Your task to perform on an android device: Open Google Chrome and open the bookmarks view Image 0: 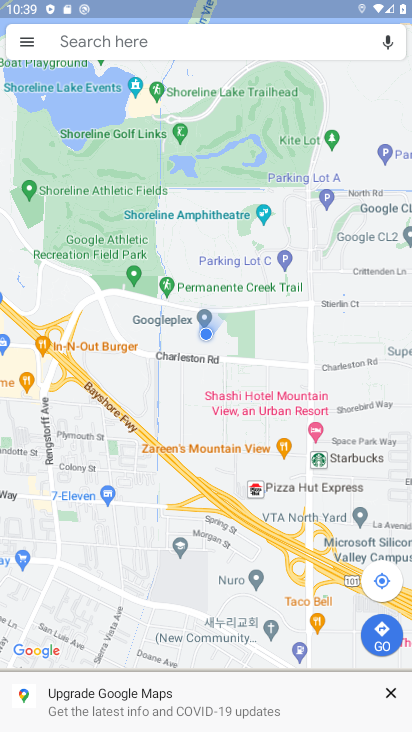
Step 0: press home button
Your task to perform on an android device: Open Google Chrome and open the bookmarks view Image 1: 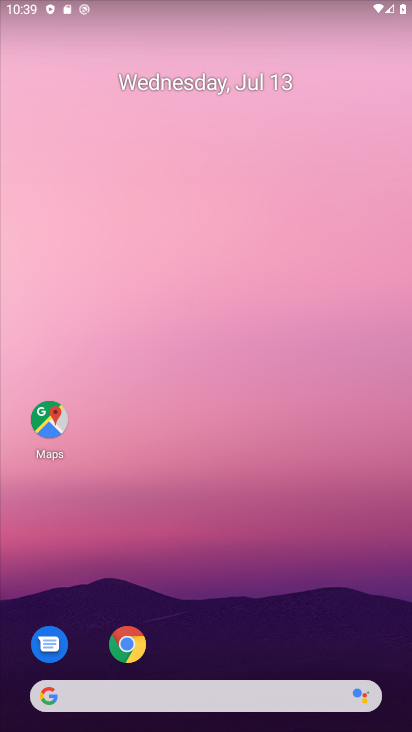
Step 1: click (131, 645)
Your task to perform on an android device: Open Google Chrome and open the bookmarks view Image 2: 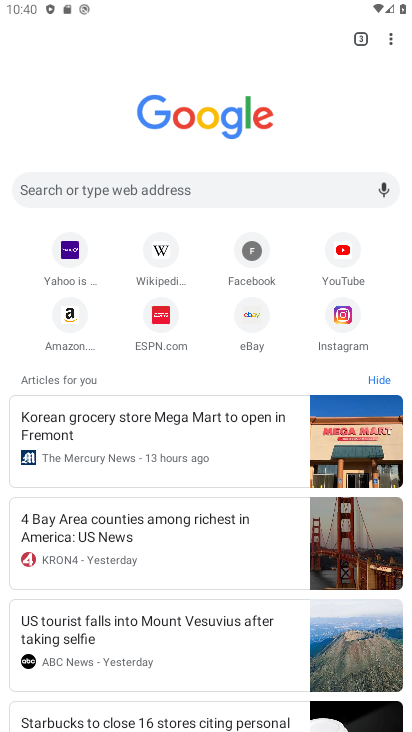
Step 2: click (392, 40)
Your task to perform on an android device: Open Google Chrome and open the bookmarks view Image 3: 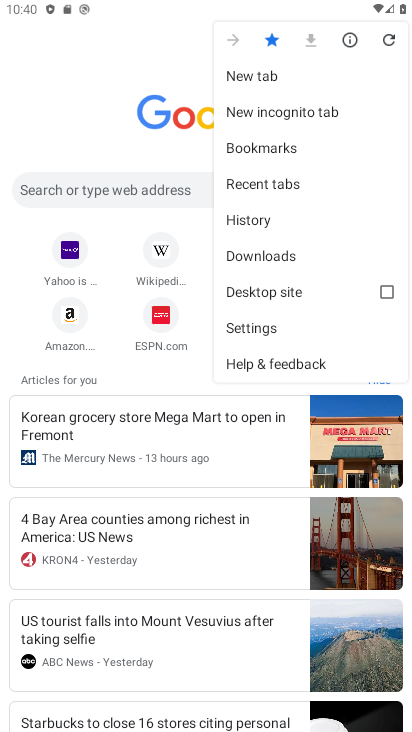
Step 3: click (255, 151)
Your task to perform on an android device: Open Google Chrome and open the bookmarks view Image 4: 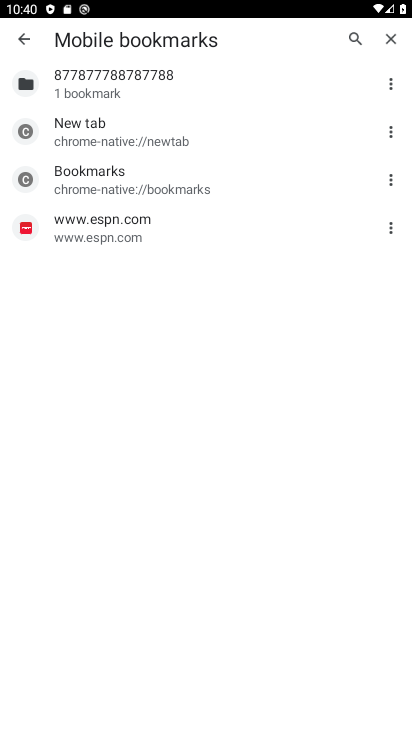
Step 4: click (389, 82)
Your task to perform on an android device: Open Google Chrome and open the bookmarks view Image 5: 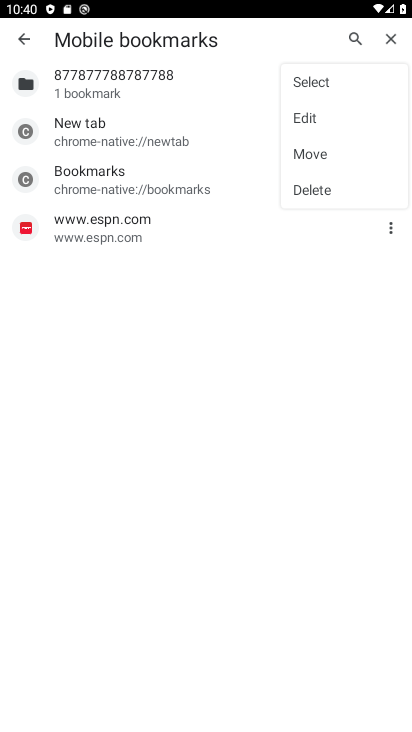
Step 5: click (313, 116)
Your task to perform on an android device: Open Google Chrome and open the bookmarks view Image 6: 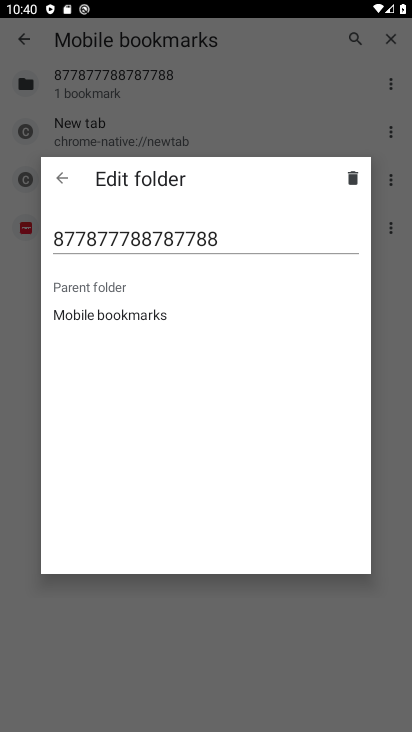
Step 6: task complete